Your task to perform on an android device: check data usage Image 0: 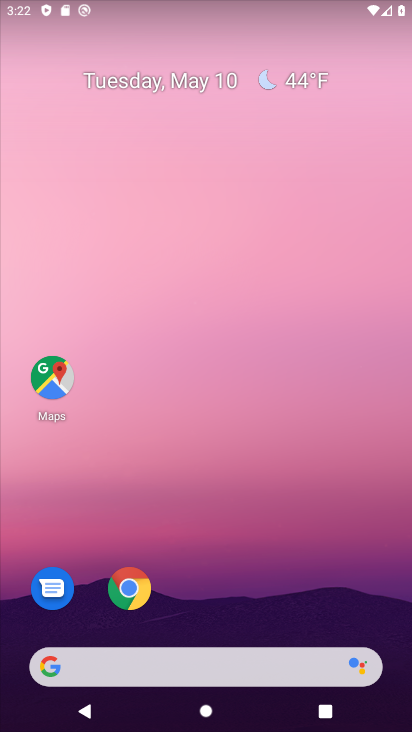
Step 0: drag from (332, 39) to (295, 474)
Your task to perform on an android device: check data usage Image 1: 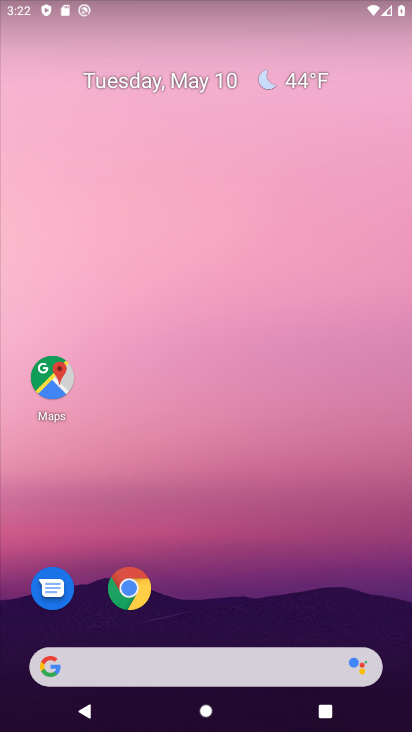
Step 1: drag from (365, 6) to (336, 416)
Your task to perform on an android device: check data usage Image 2: 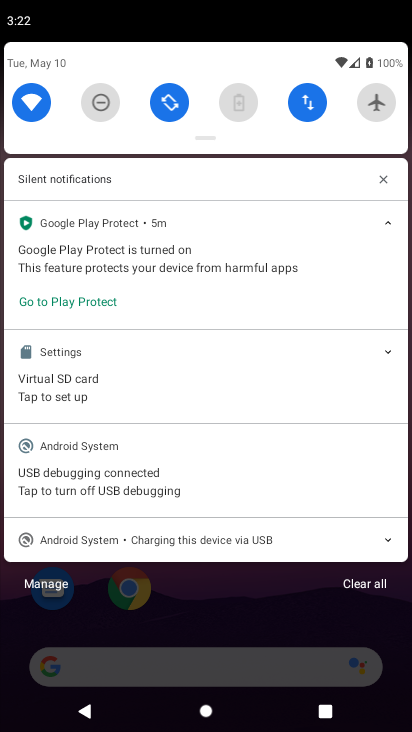
Step 2: drag from (346, 136) to (307, 545)
Your task to perform on an android device: check data usage Image 3: 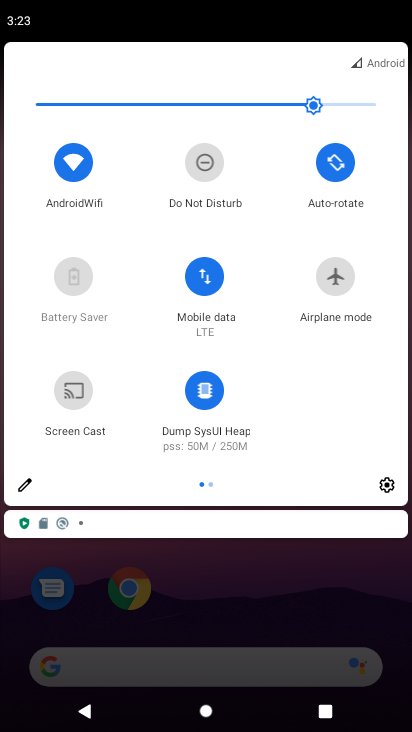
Step 3: click (202, 283)
Your task to perform on an android device: check data usage Image 4: 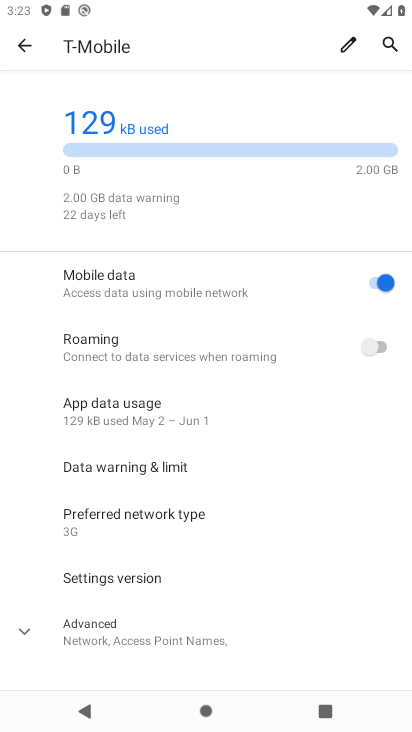
Step 4: task complete